Your task to perform on an android device: Is it going to rain this weekend? Image 0: 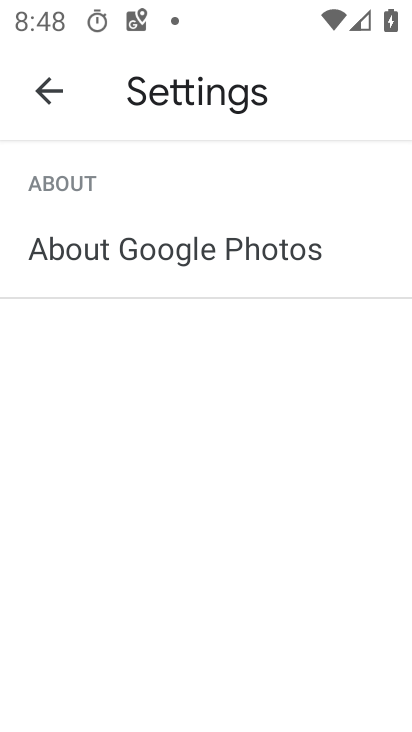
Step 0: press home button
Your task to perform on an android device: Is it going to rain this weekend? Image 1: 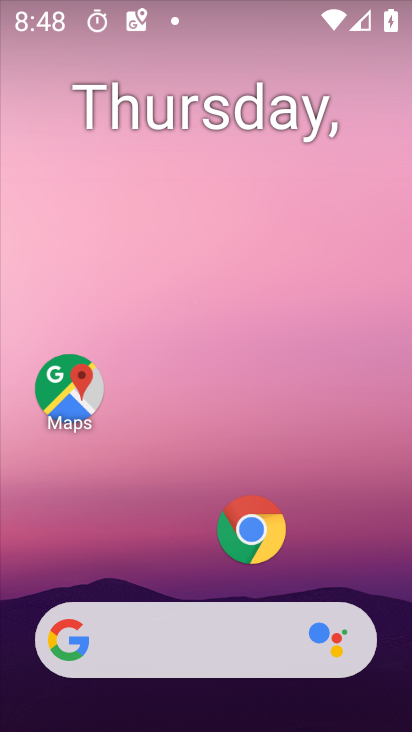
Step 1: drag from (15, 278) to (401, 302)
Your task to perform on an android device: Is it going to rain this weekend? Image 2: 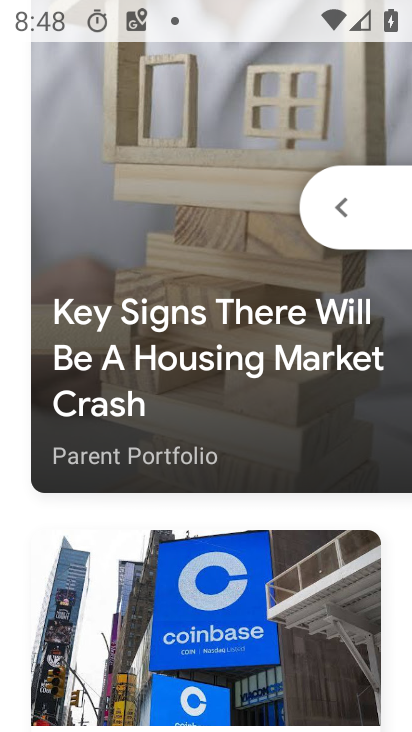
Step 2: drag from (204, 114) to (235, 698)
Your task to perform on an android device: Is it going to rain this weekend? Image 3: 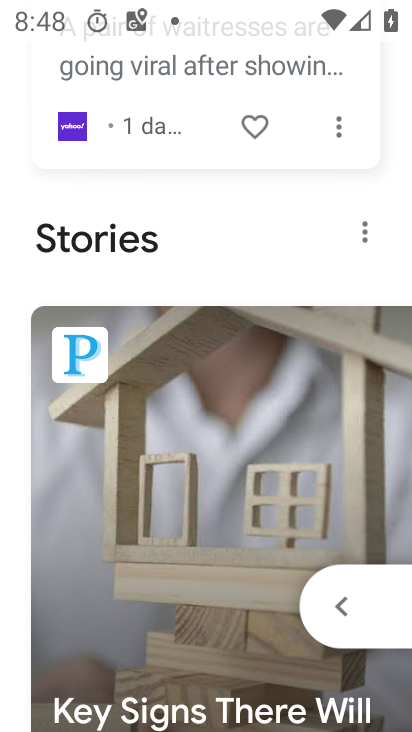
Step 3: drag from (211, 167) to (234, 721)
Your task to perform on an android device: Is it going to rain this weekend? Image 4: 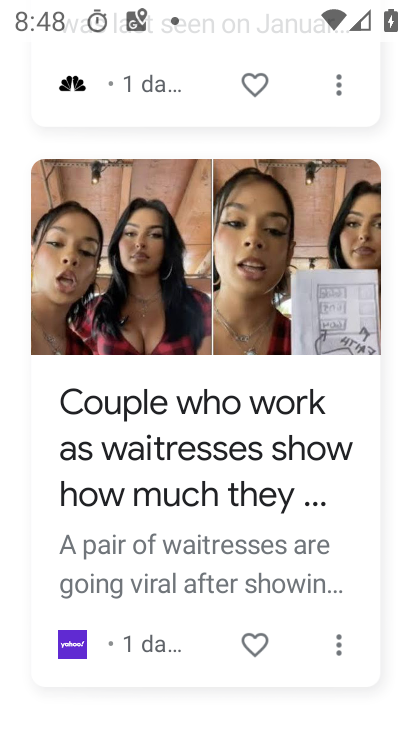
Step 4: drag from (218, 128) to (228, 730)
Your task to perform on an android device: Is it going to rain this weekend? Image 5: 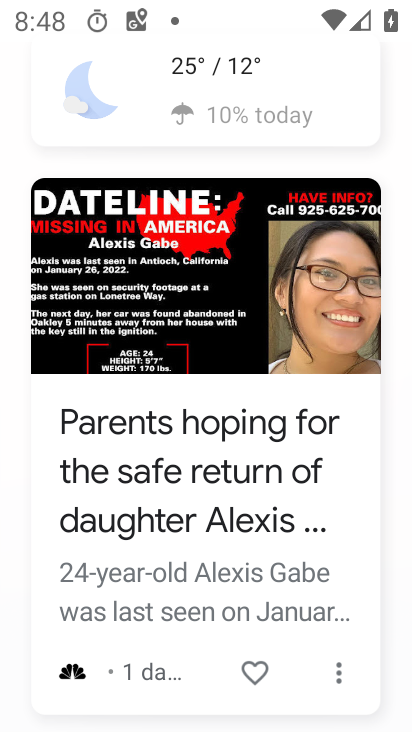
Step 5: drag from (219, 149) to (215, 715)
Your task to perform on an android device: Is it going to rain this weekend? Image 6: 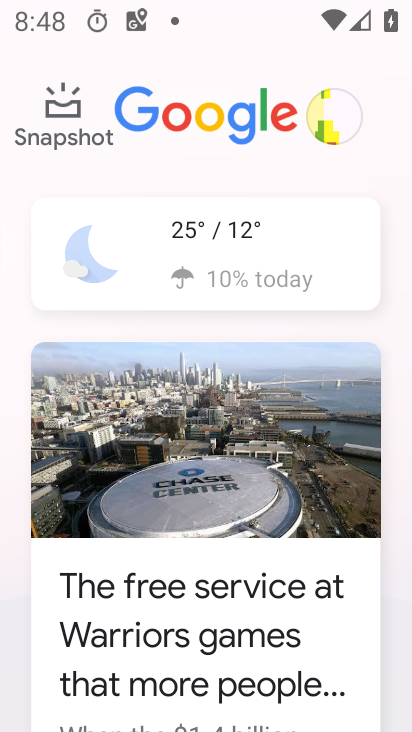
Step 6: click (229, 236)
Your task to perform on an android device: Is it going to rain this weekend? Image 7: 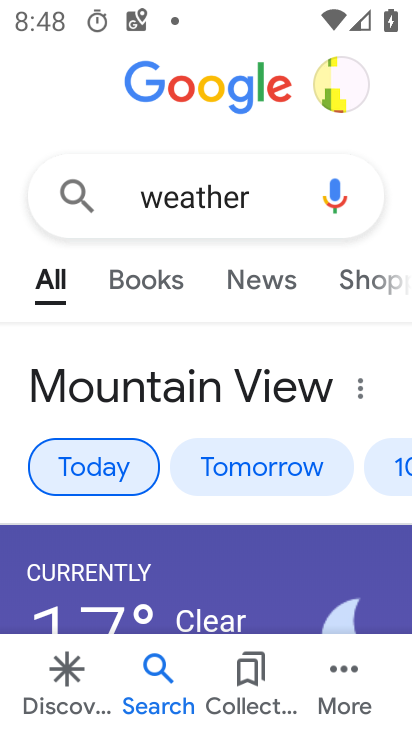
Step 7: click (389, 468)
Your task to perform on an android device: Is it going to rain this weekend? Image 8: 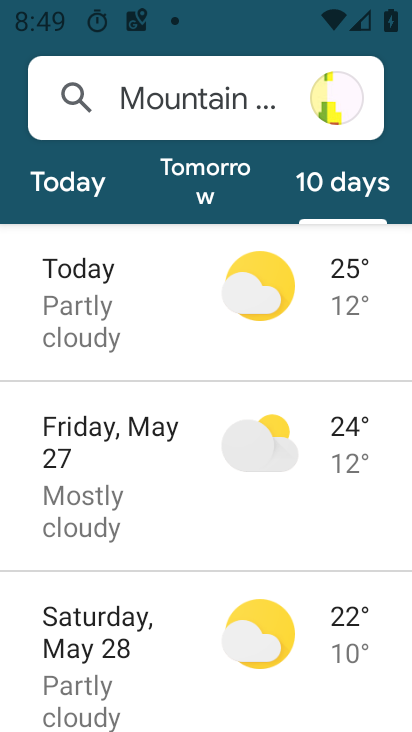
Step 8: task complete